Your task to perform on an android device: Set the phone to "Do not disturb". Image 0: 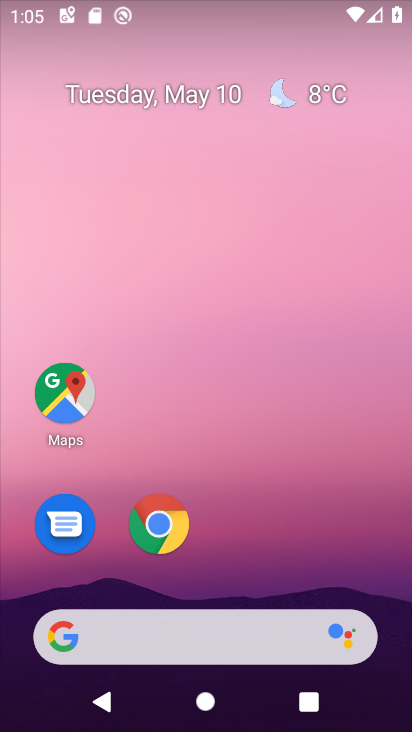
Step 0: drag from (274, 577) to (210, 44)
Your task to perform on an android device: Set the phone to "Do not disturb". Image 1: 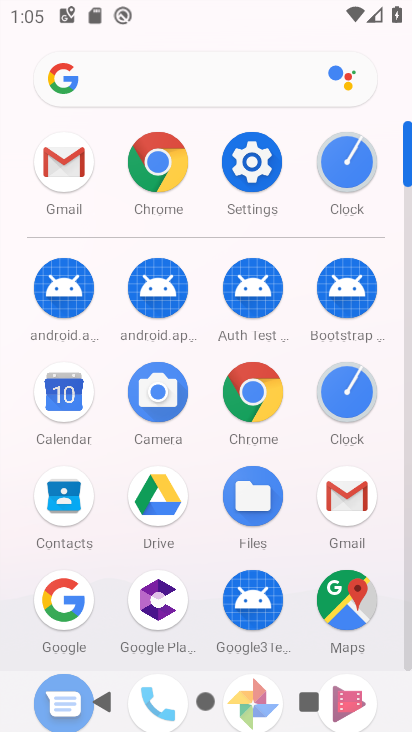
Step 1: click (254, 151)
Your task to perform on an android device: Set the phone to "Do not disturb". Image 2: 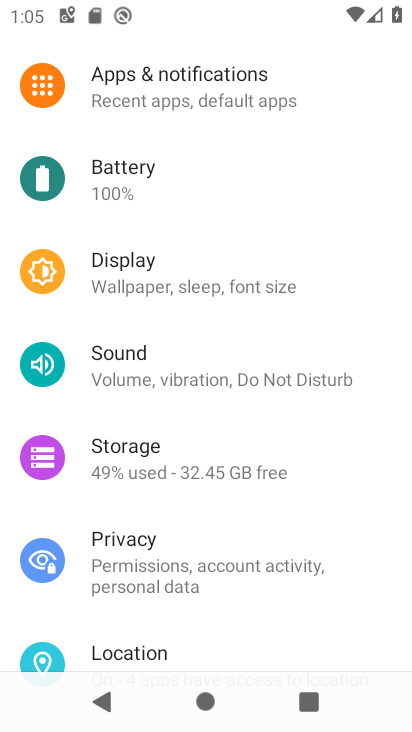
Step 2: click (298, 374)
Your task to perform on an android device: Set the phone to "Do not disturb". Image 3: 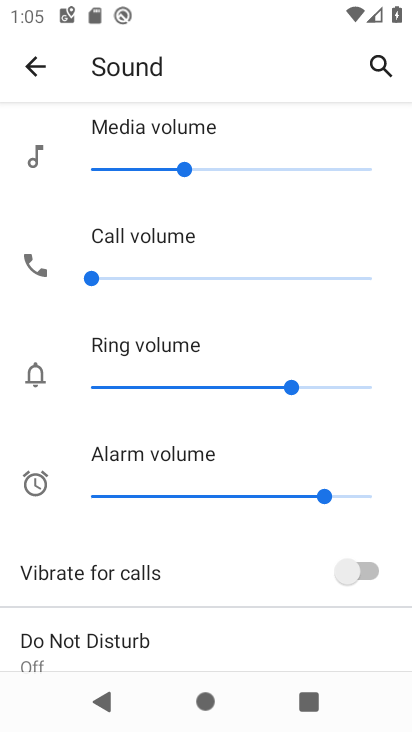
Step 3: click (129, 633)
Your task to perform on an android device: Set the phone to "Do not disturb". Image 4: 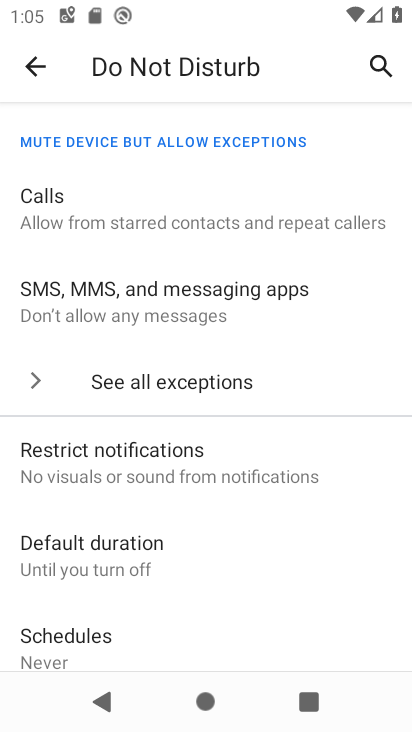
Step 4: drag from (219, 558) to (267, 207)
Your task to perform on an android device: Set the phone to "Do not disturb". Image 5: 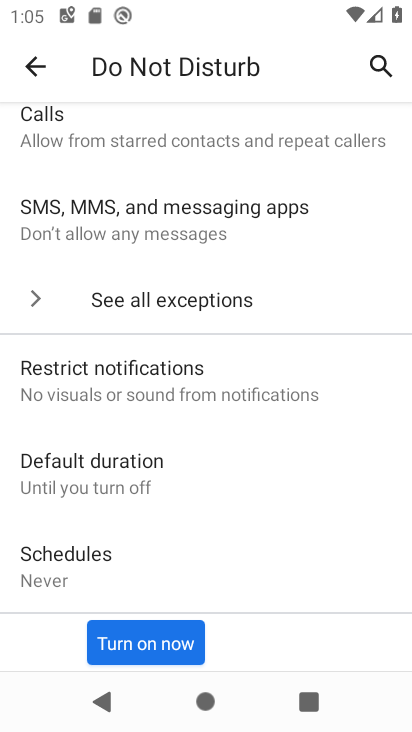
Step 5: click (182, 632)
Your task to perform on an android device: Set the phone to "Do not disturb". Image 6: 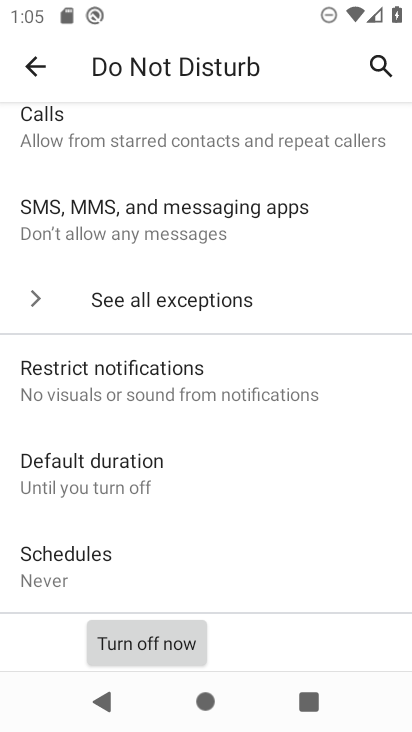
Step 6: task complete